Your task to perform on an android device: toggle javascript in the chrome app Image 0: 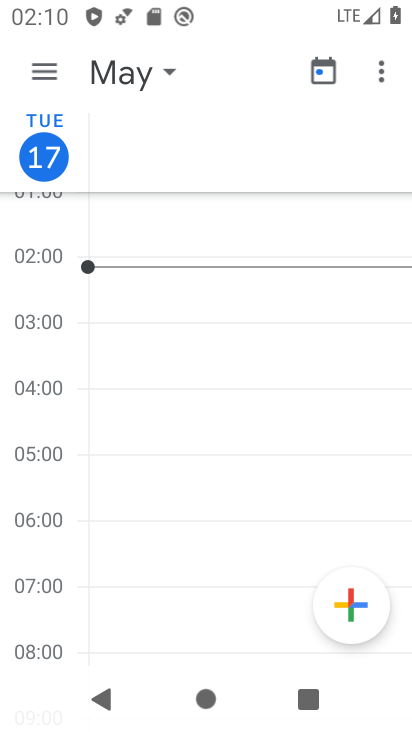
Step 0: press home button
Your task to perform on an android device: toggle javascript in the chrome app Image 1: 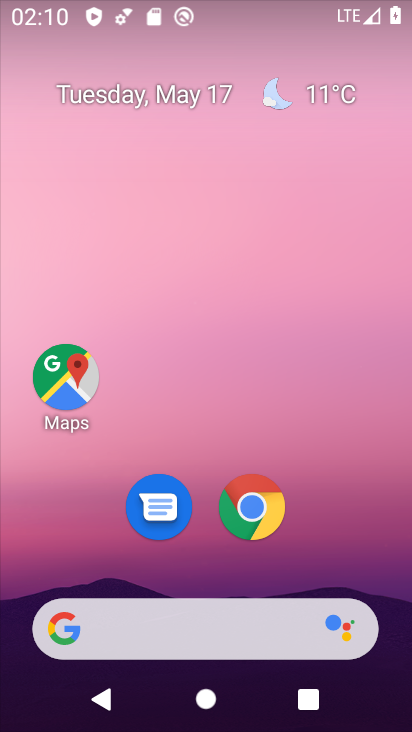
Step 1: click (264, 510)
Your task to perform on an android device: toggle javascript in the chrome app Image 2: 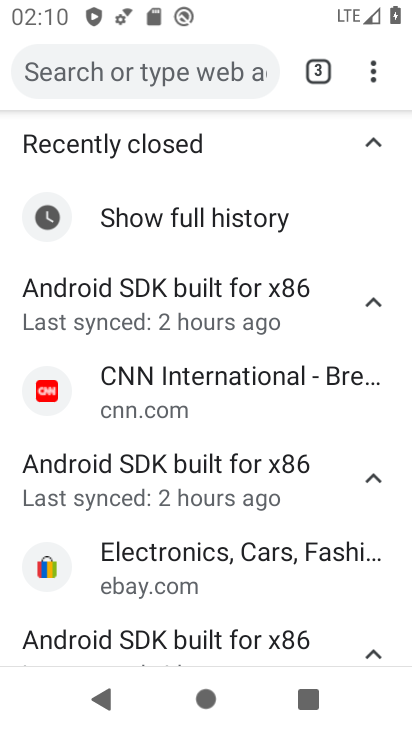
Step 2: click (360, 76)
Your task to perform on an android device: toggle javascript in the chrome app Image 3: 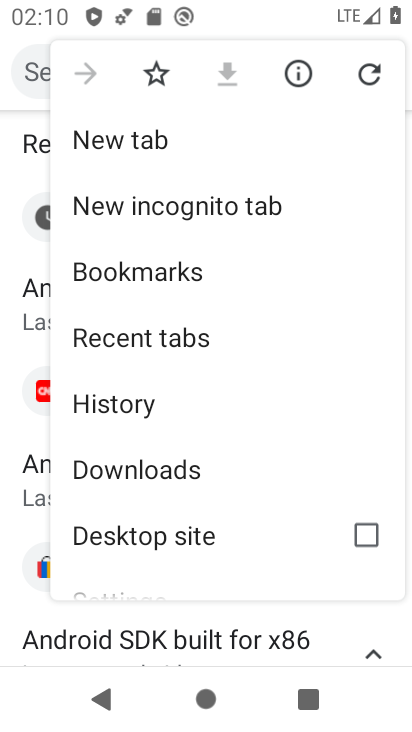
Step 3: drag from (97, 515) to (285, 81)
Your task to perform on an android device: toggle javascript in the chrome app Image 4: 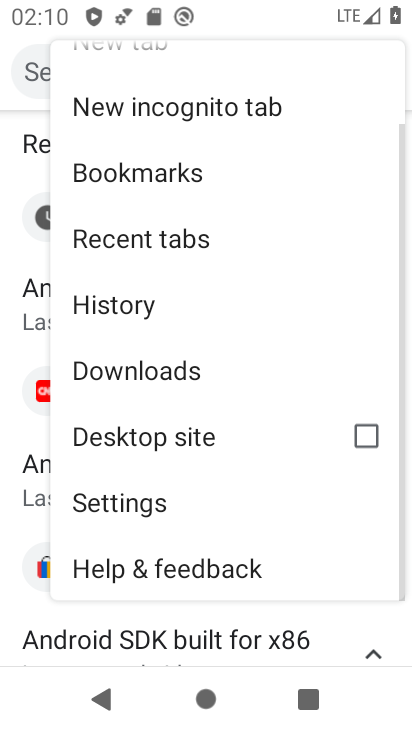
Step 4: click (99, 517)
Your task to perform on an android device: toggle javascript in the chrome app Image 5: 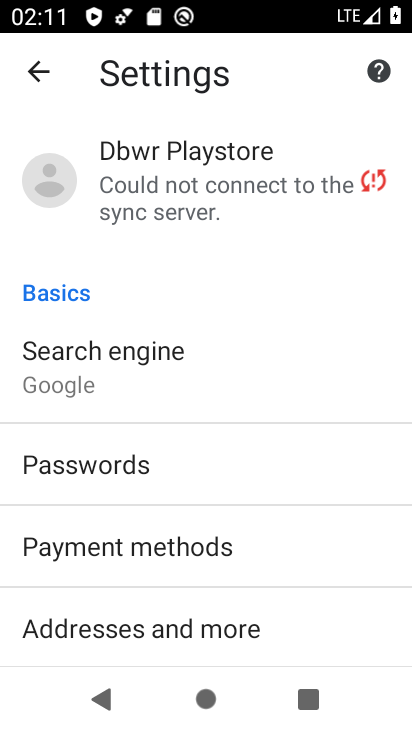
Step 5: drag from (118, 621) to (237, 270)
Your task to perform on an android device: toggle javascript in the chrome app Image 6: 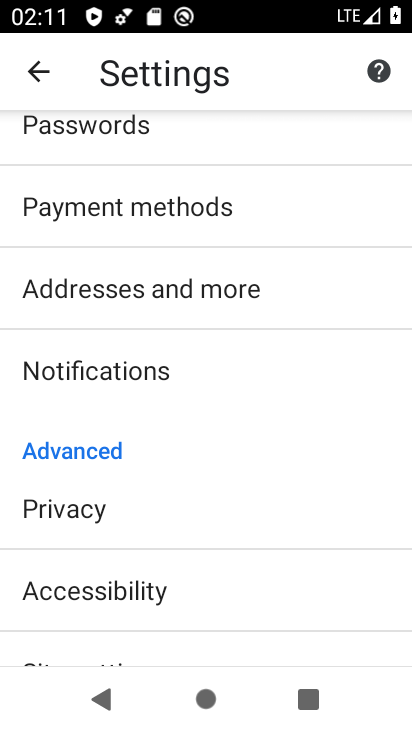
Step 6: drag from (123, 573) to (235, 198)
Your task to perform on an android device: toggle javascript in the chrome app Image 7: 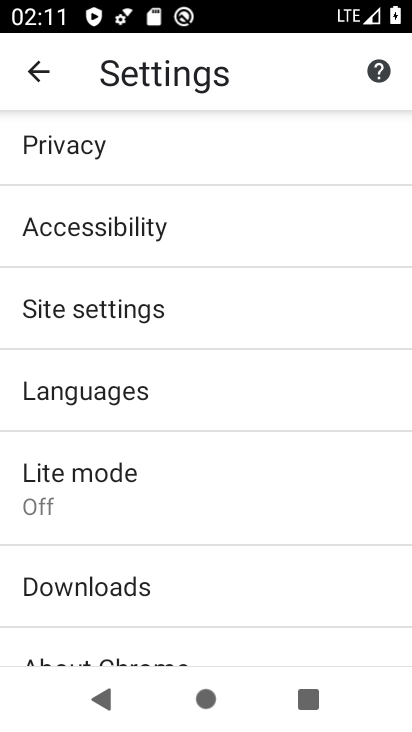
Step 7: click (173, 339)
Your task to perform on an android device: toggle javascript in the chrome app Image 8: 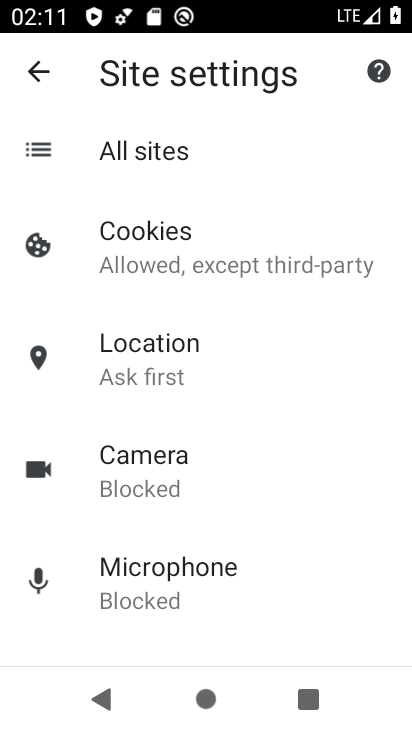
Step 8: drag from (161, 620) to (272, 216)
Your task to perform on an android device: toggle javascript in the chrome app Image 9: 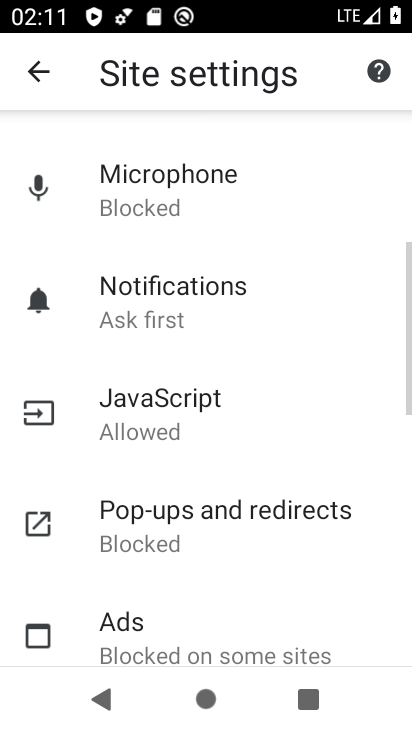
Step 9: click (134, 411)
Your task to perform on an android device: toggle javascript in the chrome app Image 10: 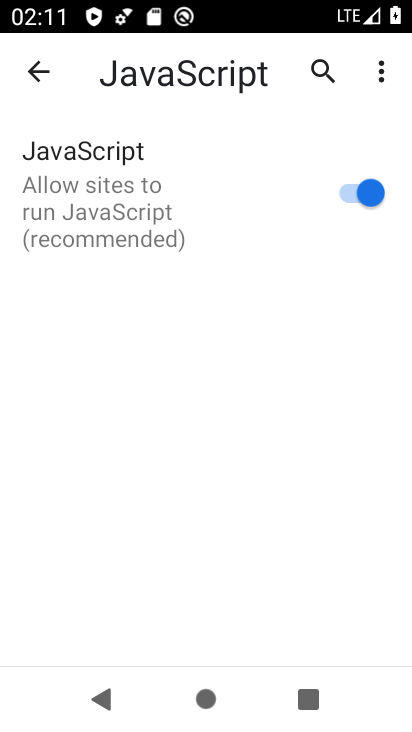
Step 10: click (364, 198)
Your task to perform on an android device: toggle javascript in the chrome app Image 11: 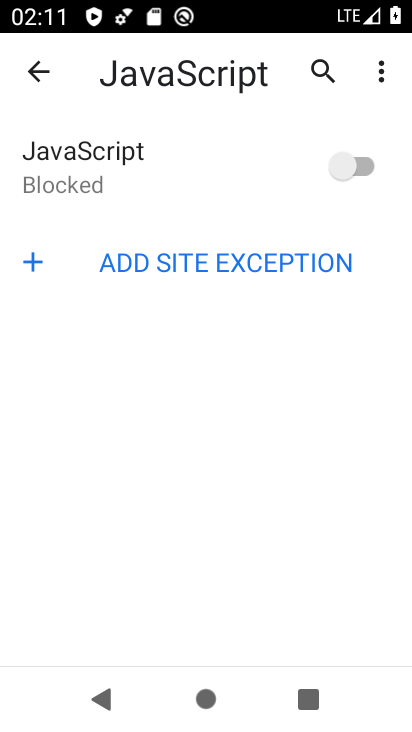
Step 11: click (364, 198)
Your task to perform on an android device: toggle javascript in the chrome app Image 12: 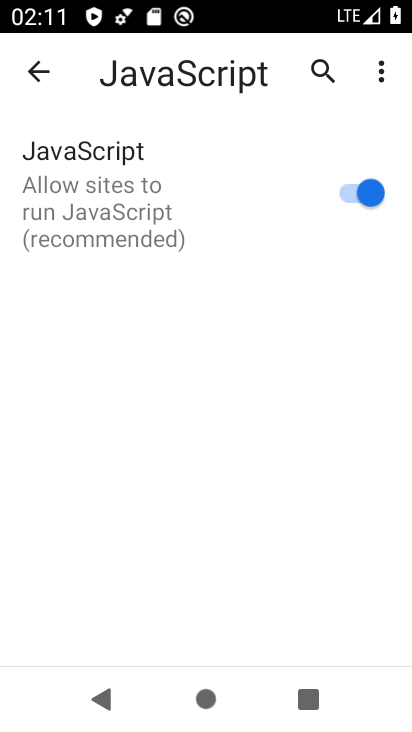
Step 12: task complete